Your task to perform on an android device: Go to network settings Image 0: 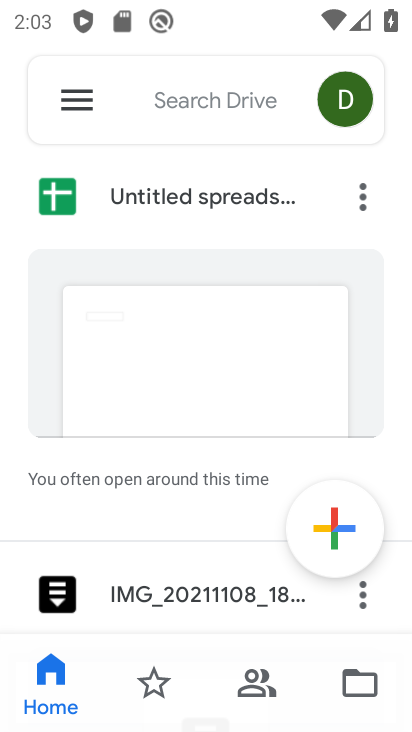
Step 0: press home button
Your task to perform on an android device: Go to network settings Image 1: 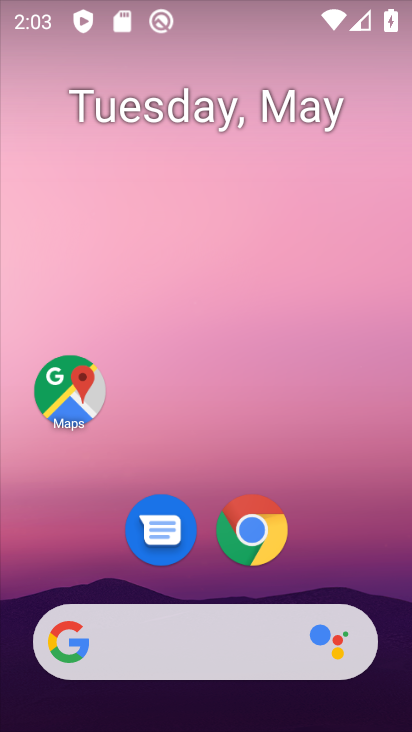
Step 1: drag from (35, 627) to (402, 187)
Your task to perform on an android device: Go to network settings Image 2: 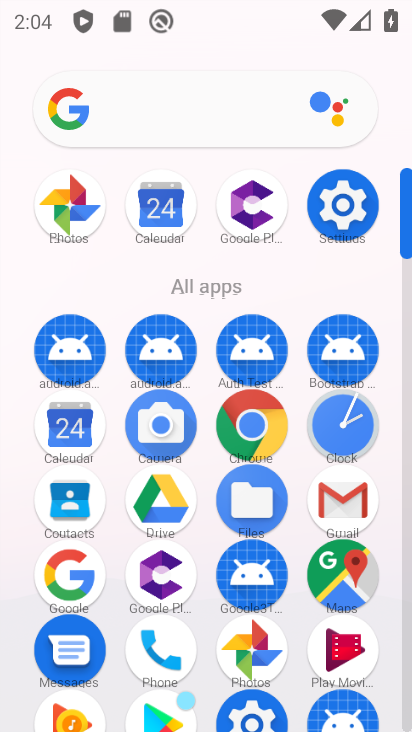
Step 2: click (342, 316)
Your task to perform on an android device: Go to network settings Image 3: 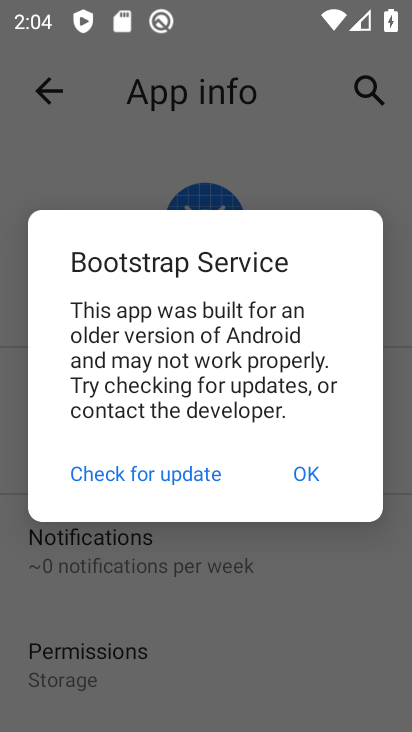
Step 3: click (318, 491)
Your task to perform on an android device: Go to network settings Image 4: 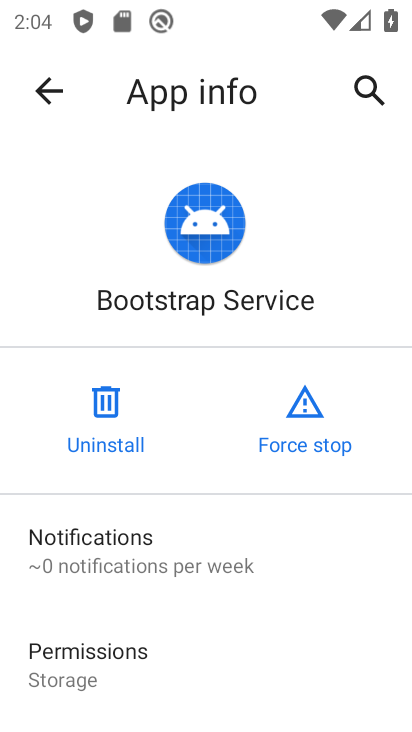
Step 4: press back button
Your task to perform on an android device: Go to network settings Image 5: 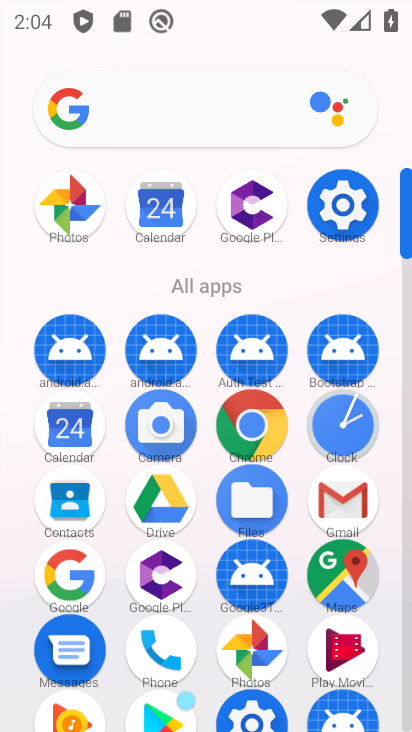
Step 5: click (342, 201)
Your task to perform on an android device: Go to network settings Image 6: 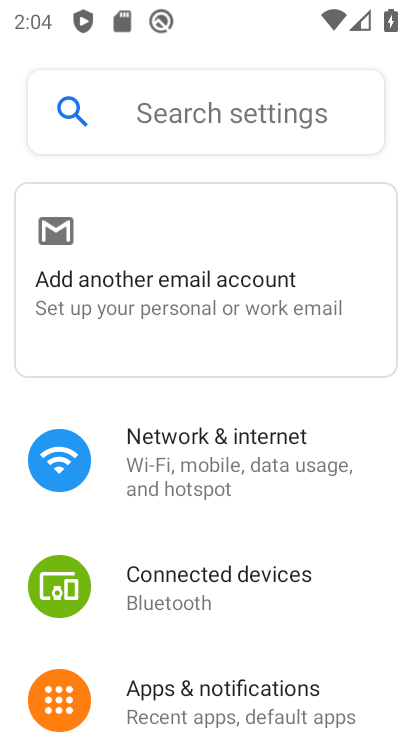
Step 6: click (154, 449)
Your task to perform on an android device: Go to network settings Image 7: 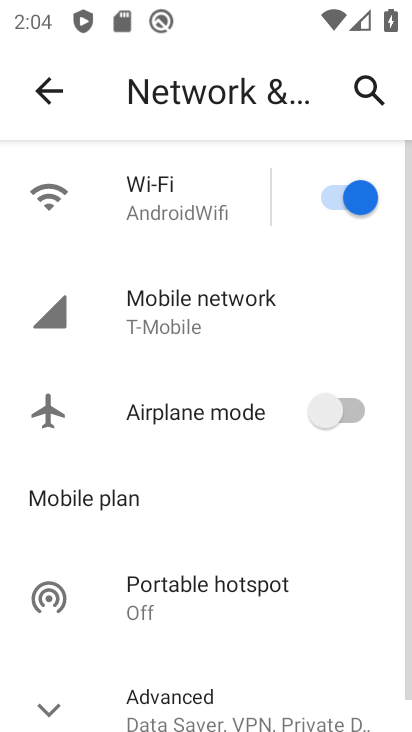
Step 7: click (213, 327)
Your task to perform on an android device: Go to network settings Image 8: 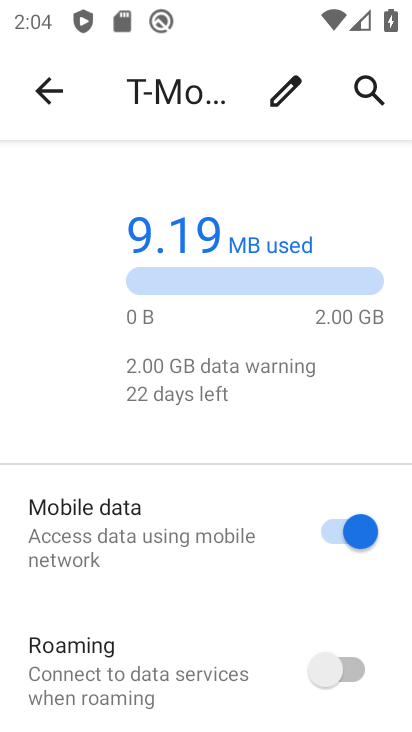
Step 8: task complete